Your task to perform on an android device: Clear all items from cart on newegg. Add alienware aurora to the cart on newegg, then select checkout. Image 0: 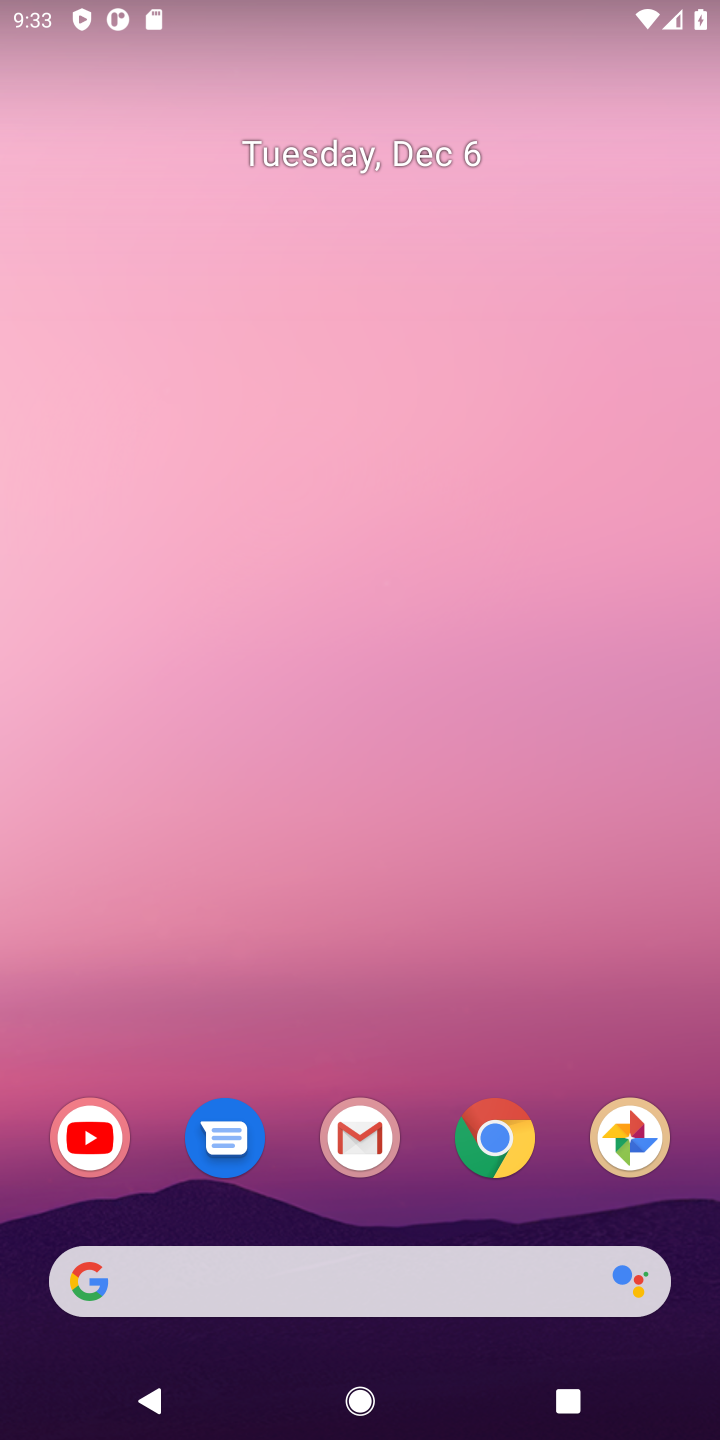
Step 0: click (496, 1144)
Your task to perform on an android device: Clear all items from cart on newegg. Add alienware aurora to the cart on newegg, then select checkout. Image 1: 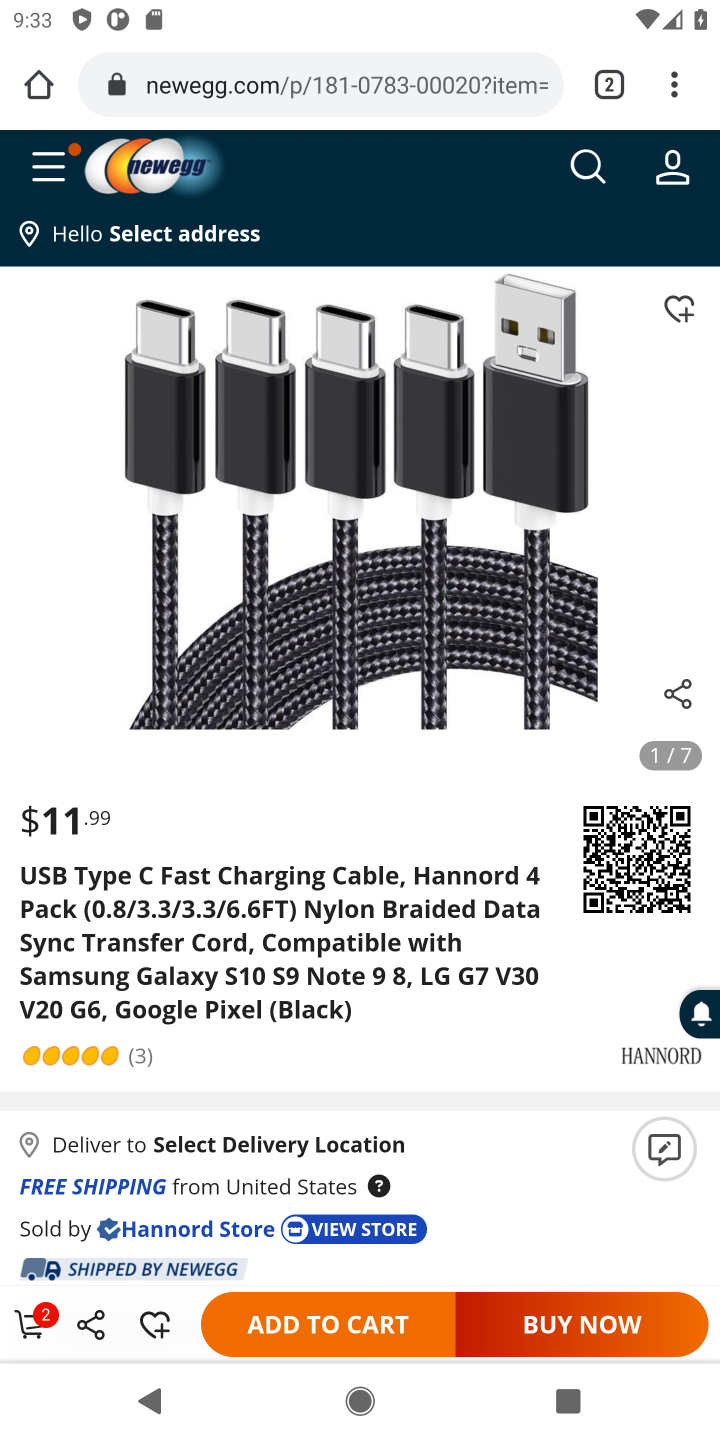
Step 1: drag from (596, 317) to (599, 571)
Your task to perform on an android device: Clear all items from cart on newegg. Add alienware aurora to the cart on newegg, then select checkout. Image 2: 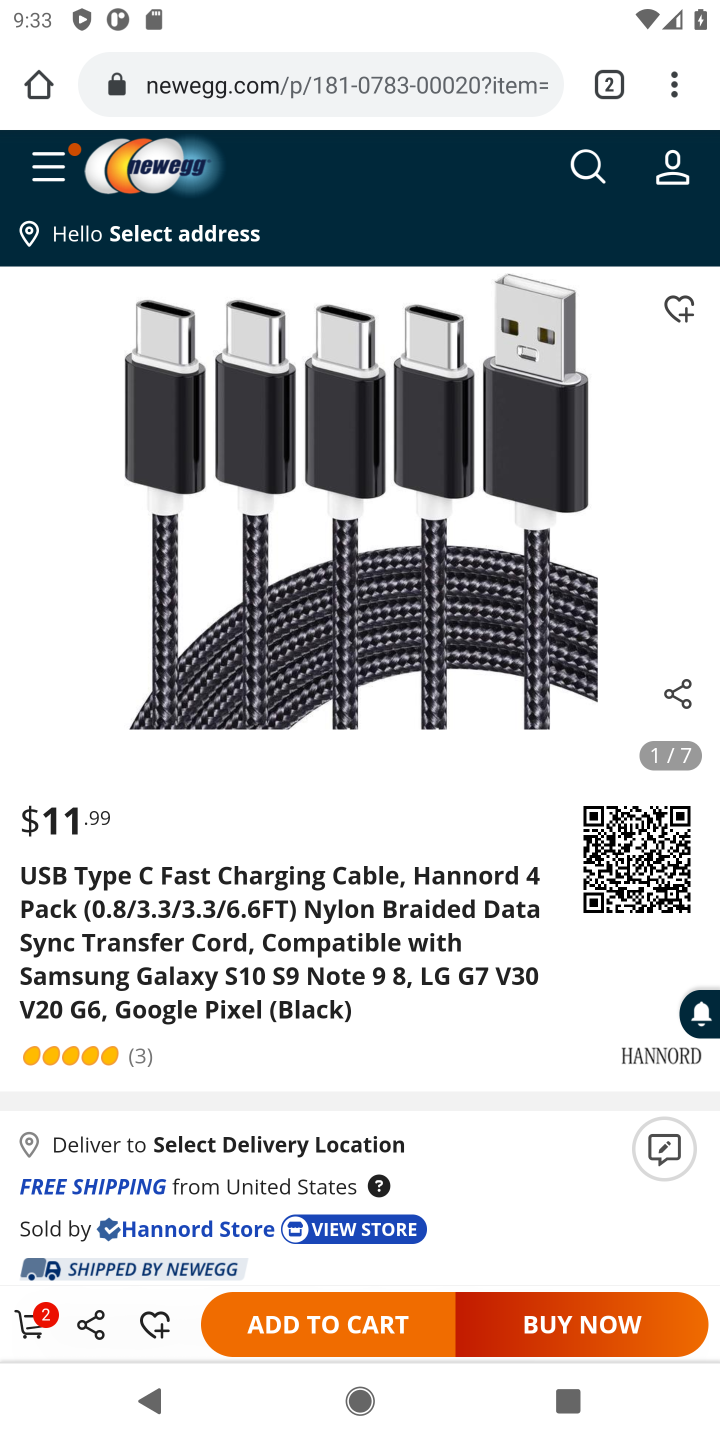
Step 2: drag from (432, 286) to (402, 515)
Your task to perform on an android device: Clear all items from cart on newegg. Add alienware aurora to the cart on newegg, then select checkout. Image 3: 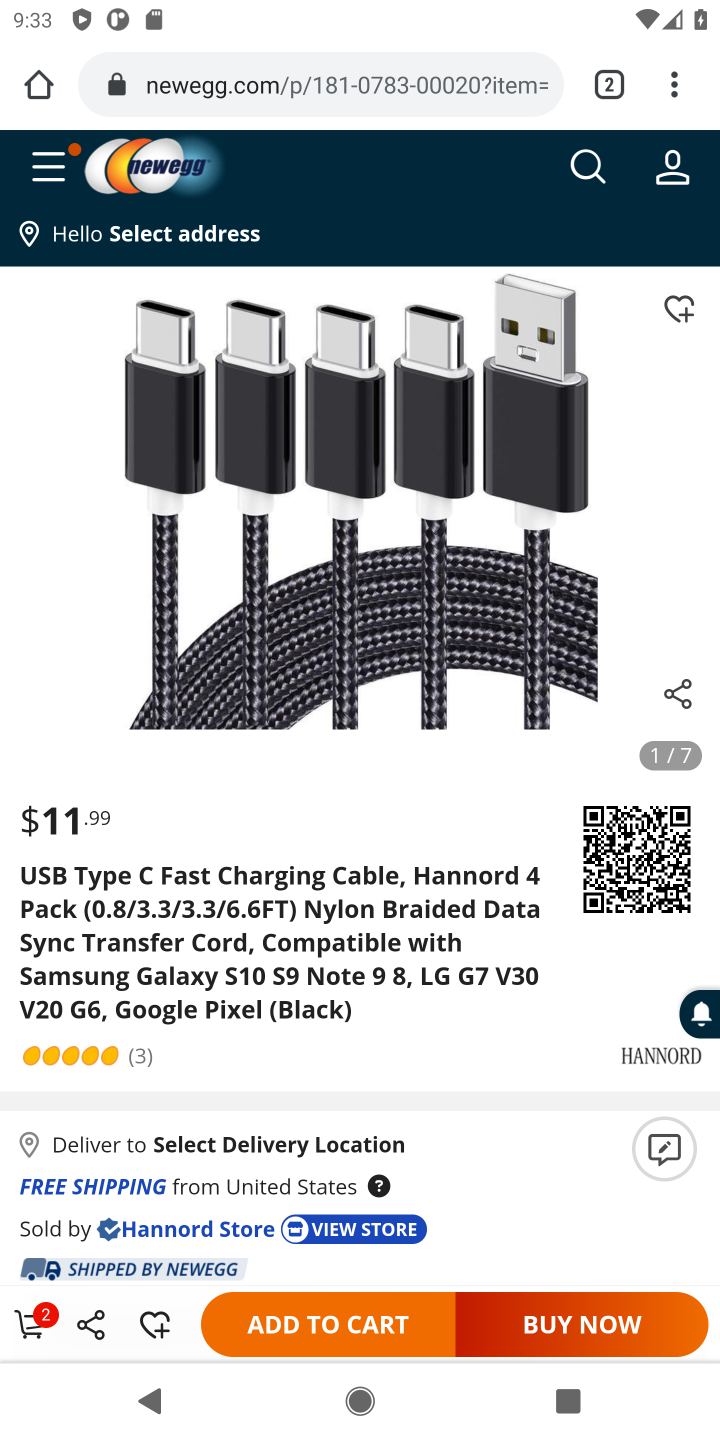
Step 3: click (25, 1324)
Your task to perform on an android device: Clear all items from cart on newegg. Add alienware aurora to the cart on newegg, then select checkout. Image 4: 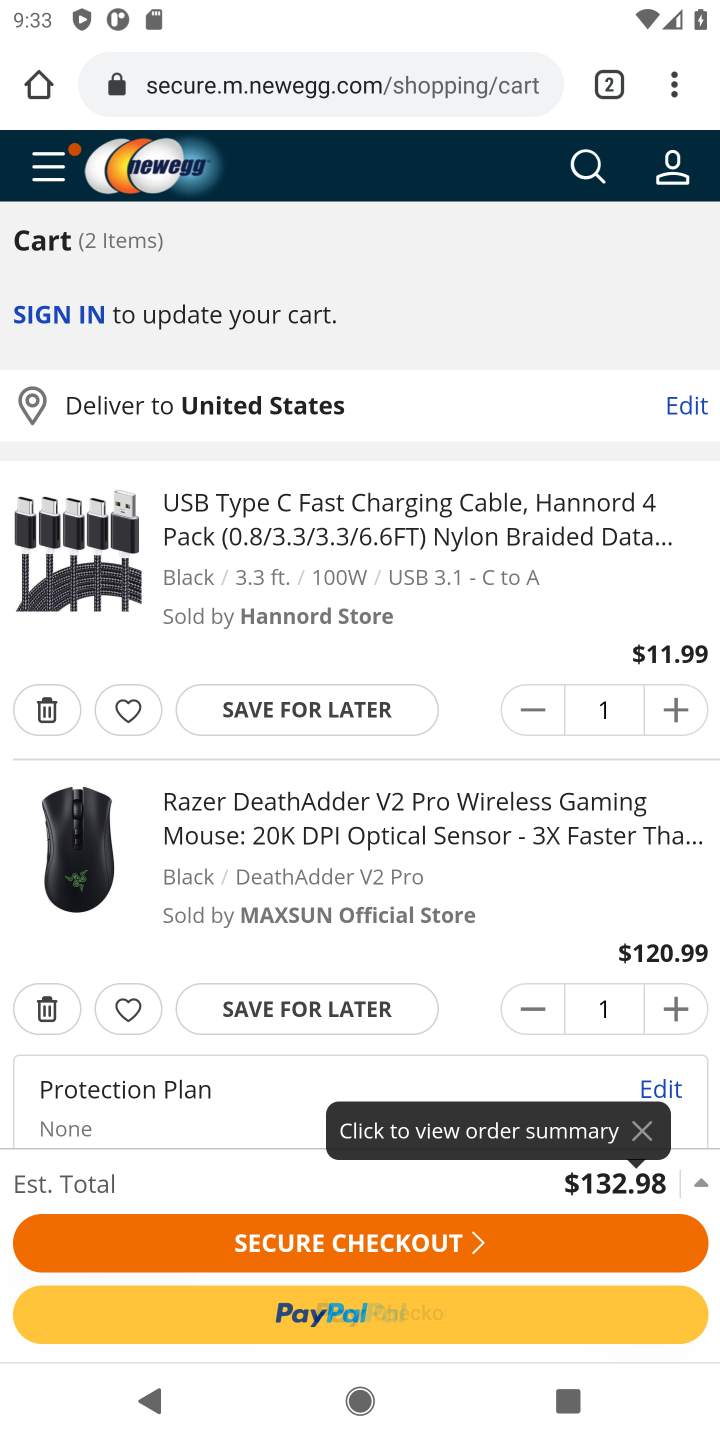
Step 4: click (51, 715)
Your task to perform on an android device: Clear all items from cart on newegg. Add alienware aurora to the cart on newegg, then select checkout. Image 5: 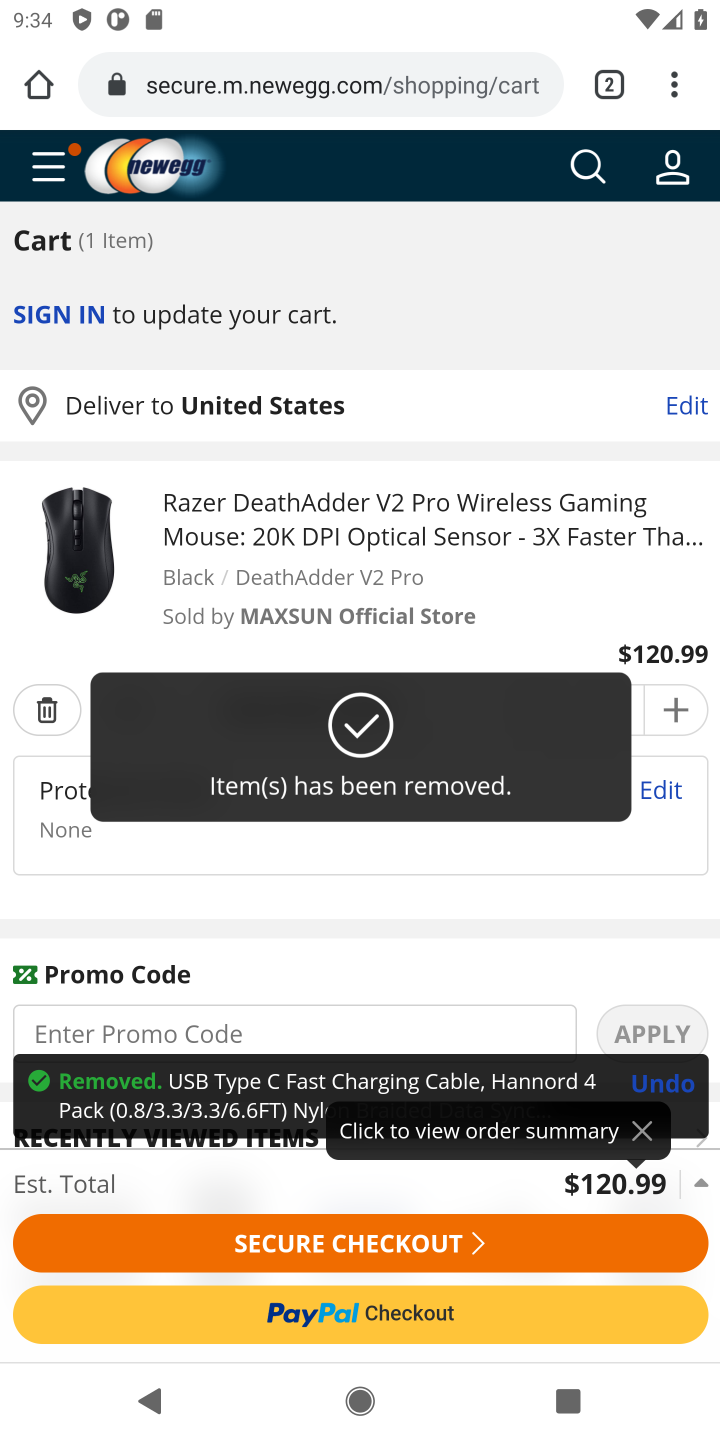
Step 5: click (51, 715)
Your task to perform on an android device: Clear all items from cart on newegg. Add alienware aurora to the cart on newegg, then select checkout. Image 6: 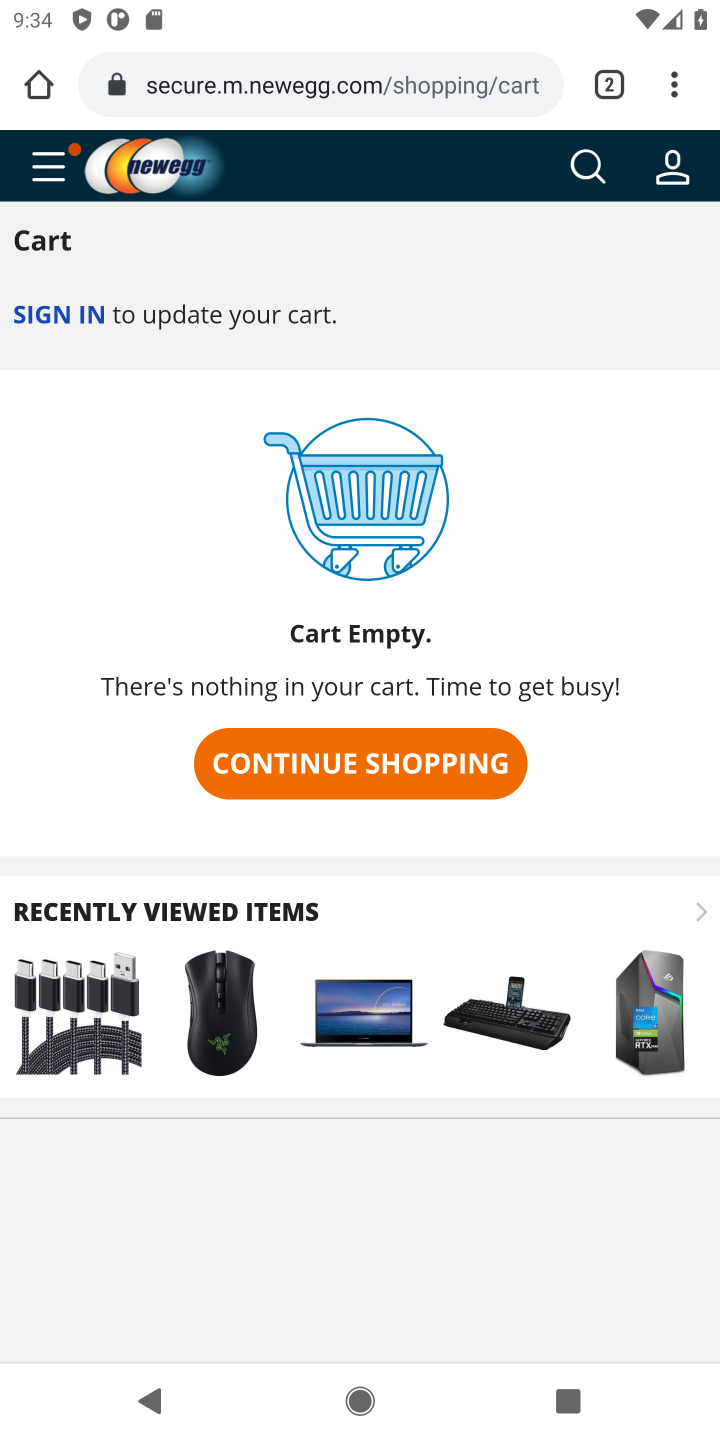
Step 6: click (579, 181)
Your task to perform on an android device: Clear all items from cart on newegg. Add alienware aurora to the cart on newegg, then select checkout. Image 7: 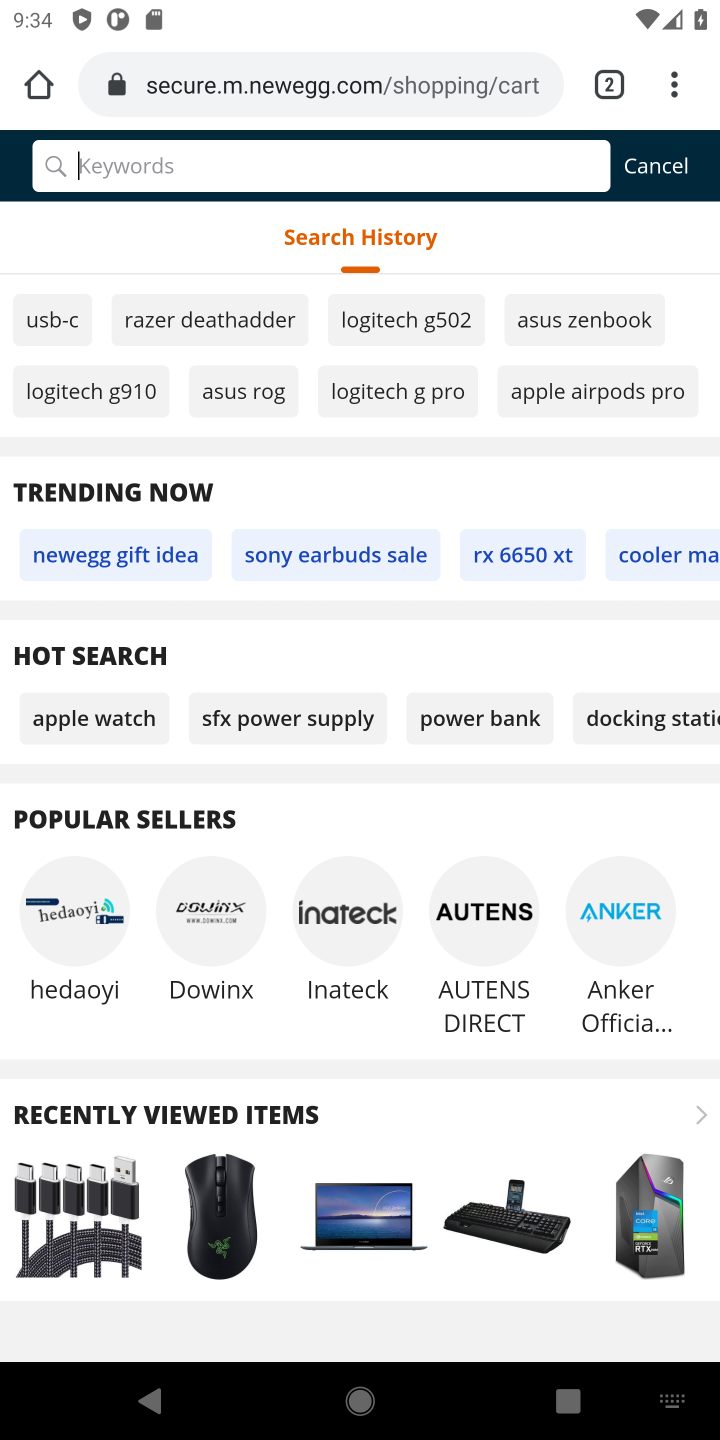
Step 7: type "alienware aurora"
Your task to perform on an android device: Clear all items from cart on newegg. Add alienware aurora to the cart on newegg, then select checkout. Image 8: 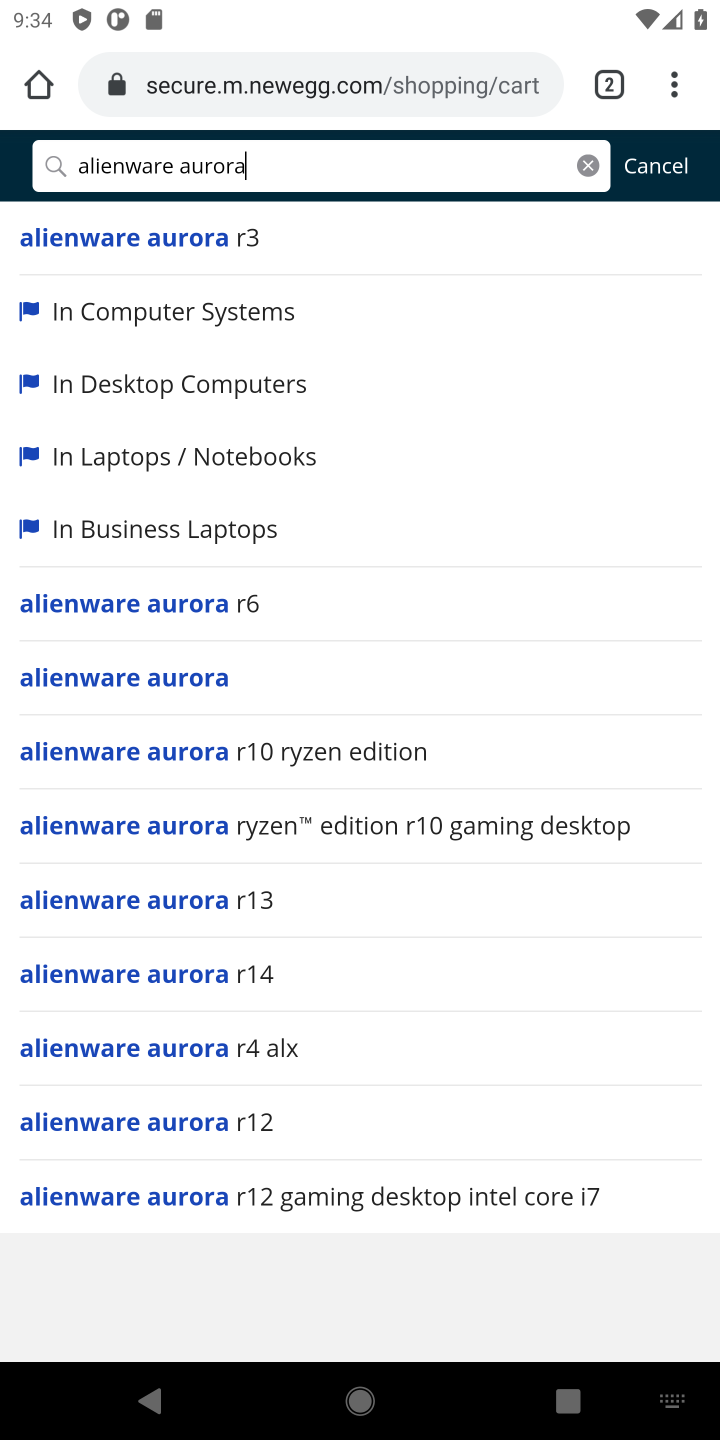
Step 8: click (111, 691)
Your task to perform on an android device: Clear all items from cart on newegg. Add alienware aurora to the cart on newegg, then select checkout. Image 9: 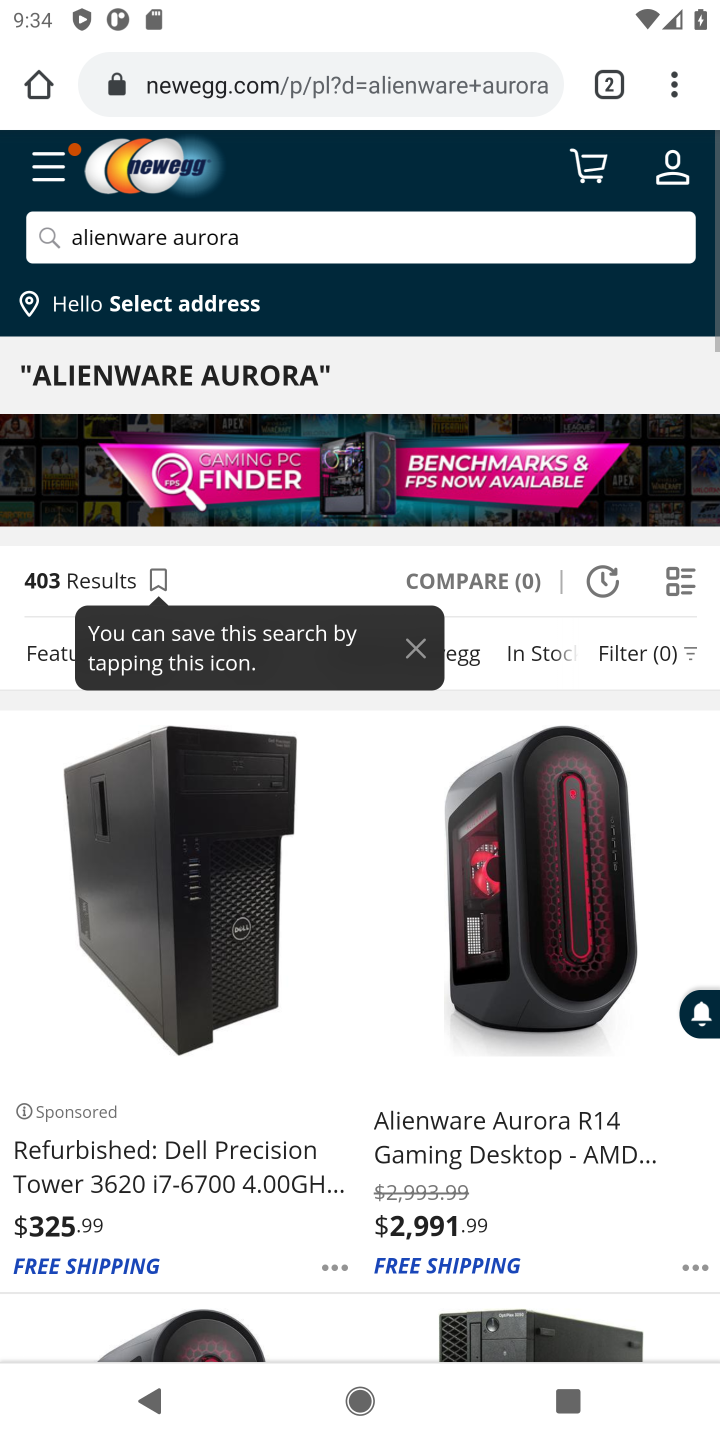
Step 9: drag from (183, 922) to (153, 670)
Your task to perform on an android device: Clear all items from cart on newegg. Add alienware aurora to the cart on newegg, then select checkout. Image 10: 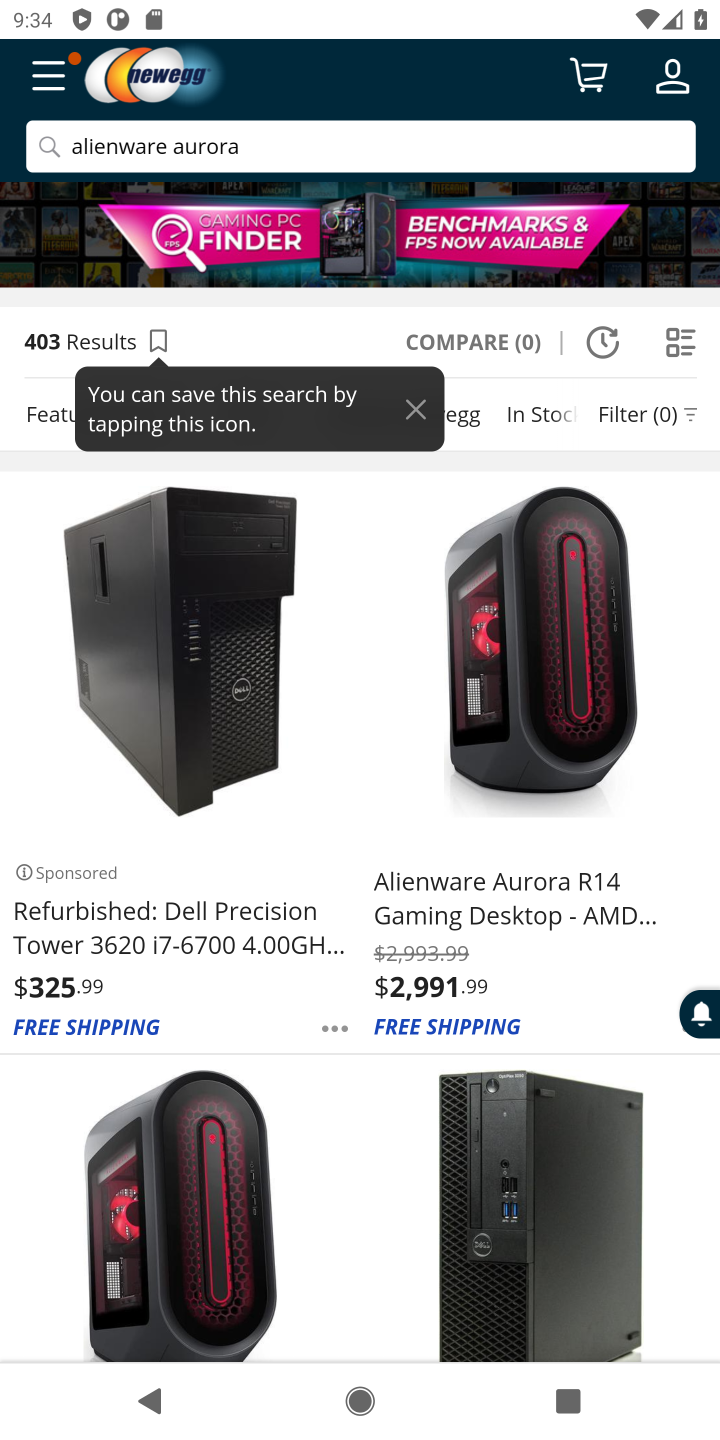
Step 10: click (519, 903)
Your task to perform on an android device: Clear all items from cart on newegg. Add alienware aurora to the cart on newegg, then select checkout. Image 11: 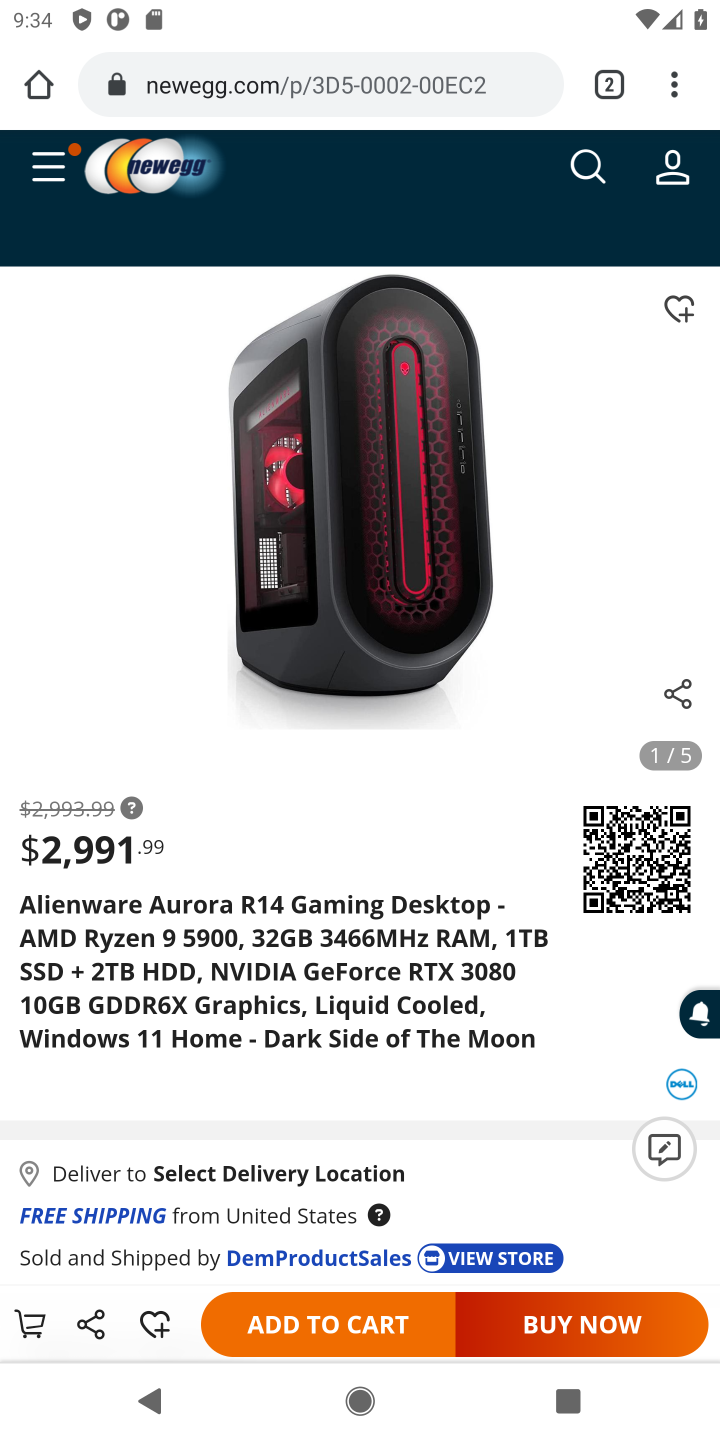
Step 11: click (312, 1320)
Your task to perform on an android device: Clear all items from cart on newegg. Add alienware aurora to the cart on newegg, then select checkout. Image 12: 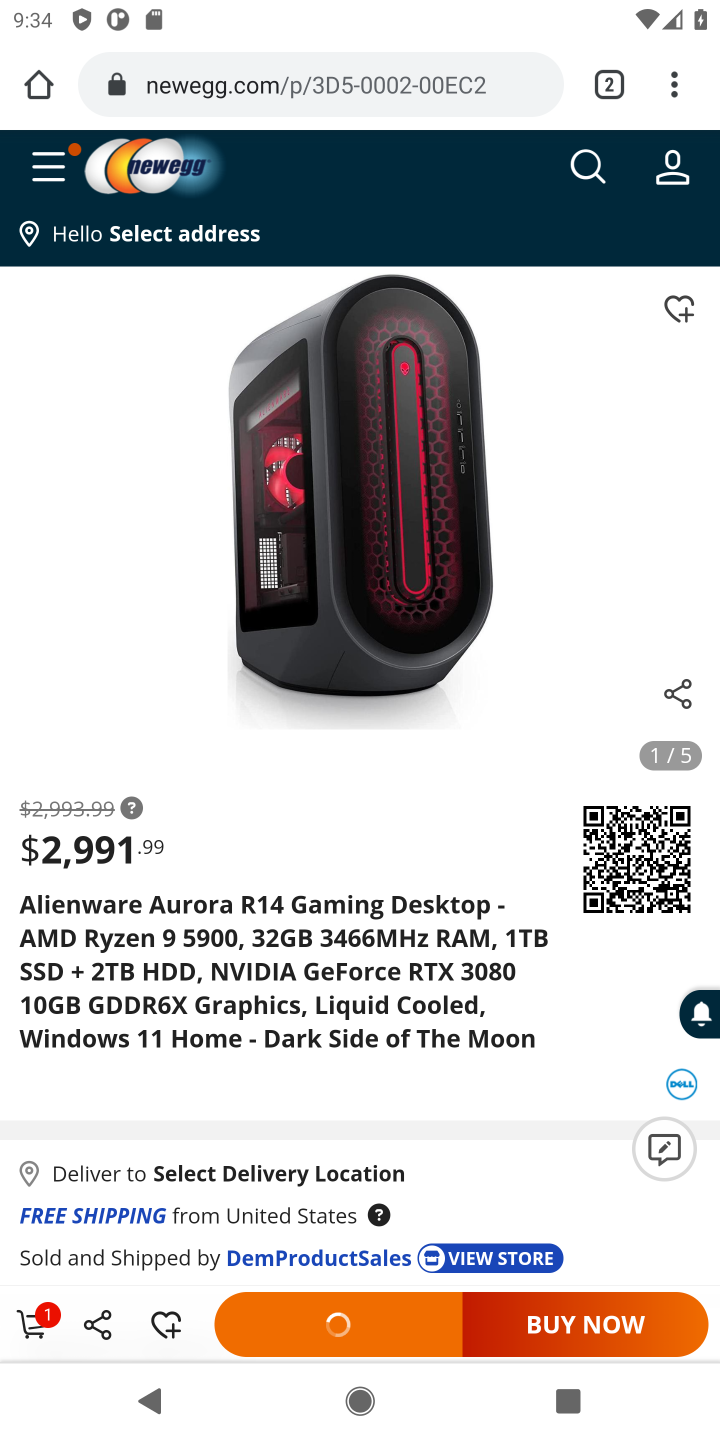
Step 12: click (45, 1319)
Your task to perform on an android device: Clear all items from cart on newegg. Add alienware aurora to the cart on newegg, then select checkout. Image 13: 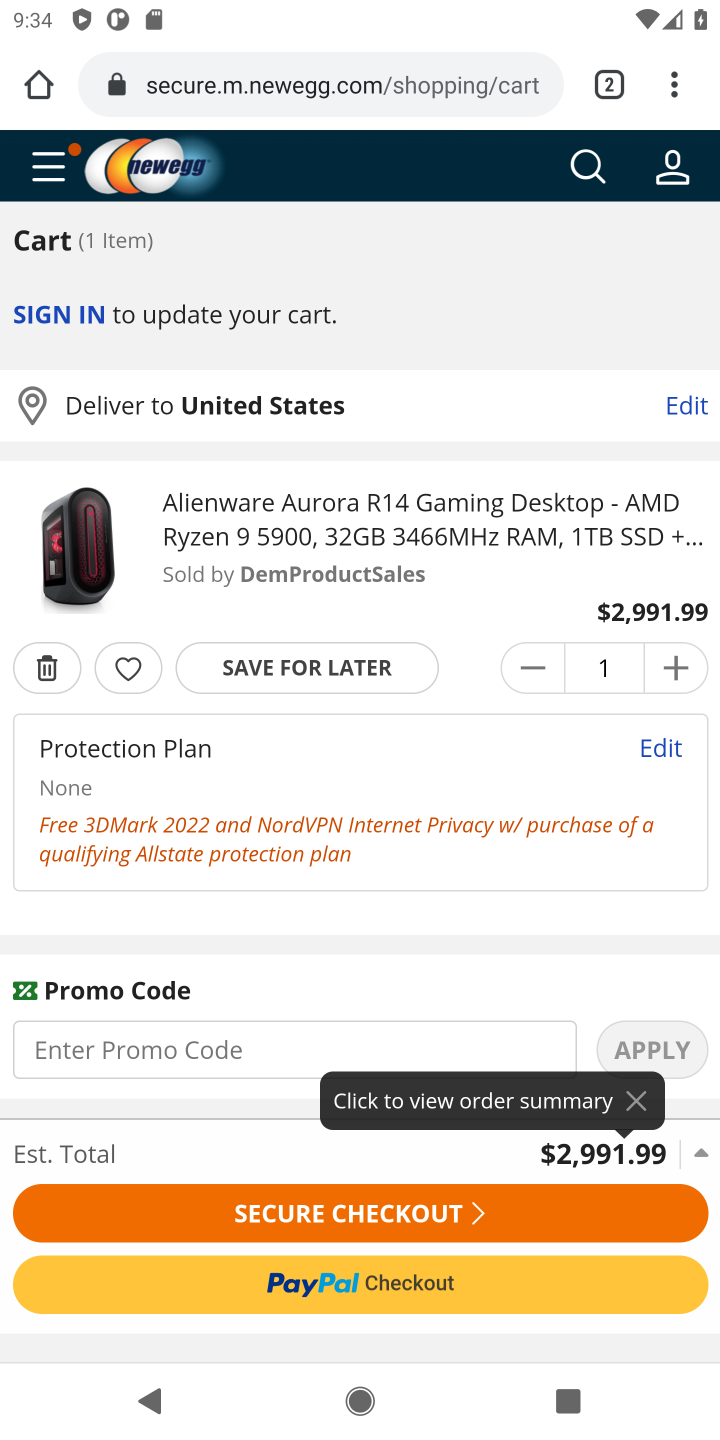
Step 13: click (259, 1214)
Your task to perform on an android device: Clear all items from cart on newegg. Add alienware aurora to the cart on newegg, then select checkout. Image 14: 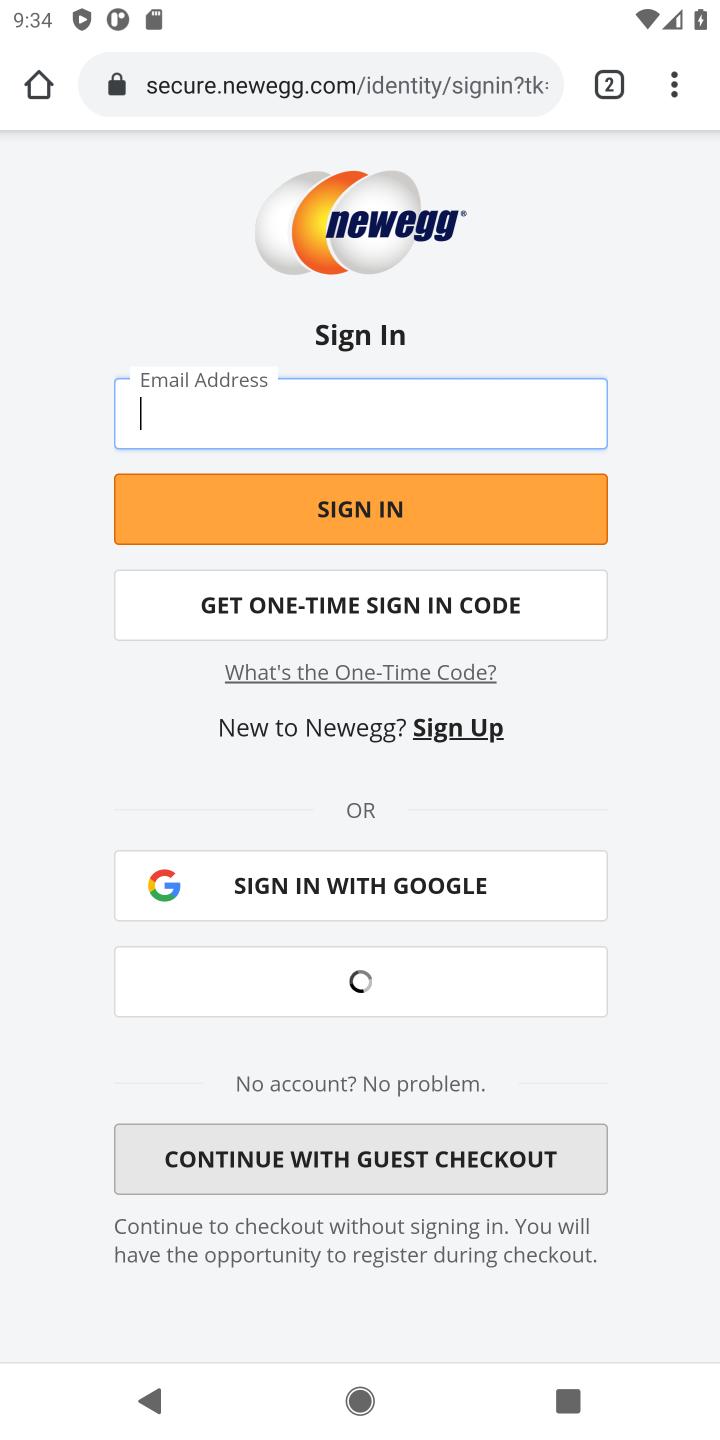
Step 14: task complete